Your task to perform on an android device: find snoozed emails in the gmail app Image 0: 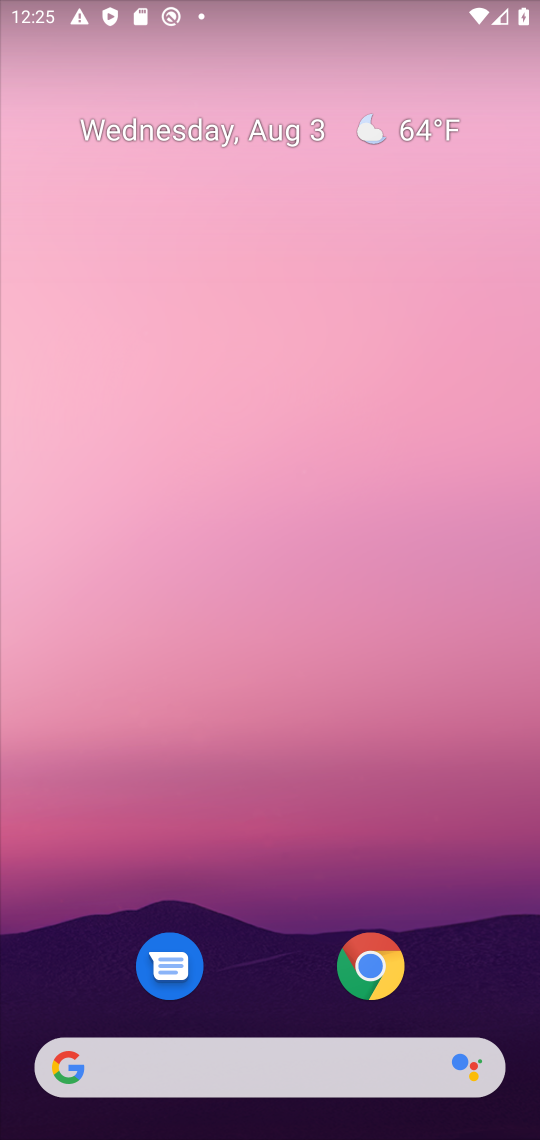
Step 0: drag from (235, 969) to (244, 312)
Your task to perform on an android device: find snoozed emails in the gmail app Image 1: 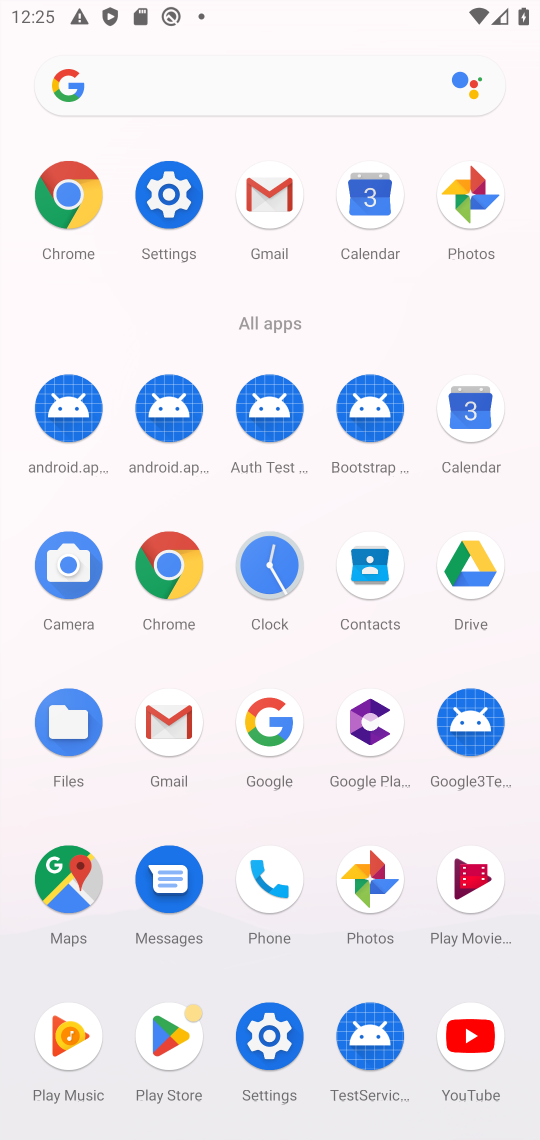
Step 1: click (281, 222)
Your task to perform on an android device: find snoozed emails in the gmail app Image 2: 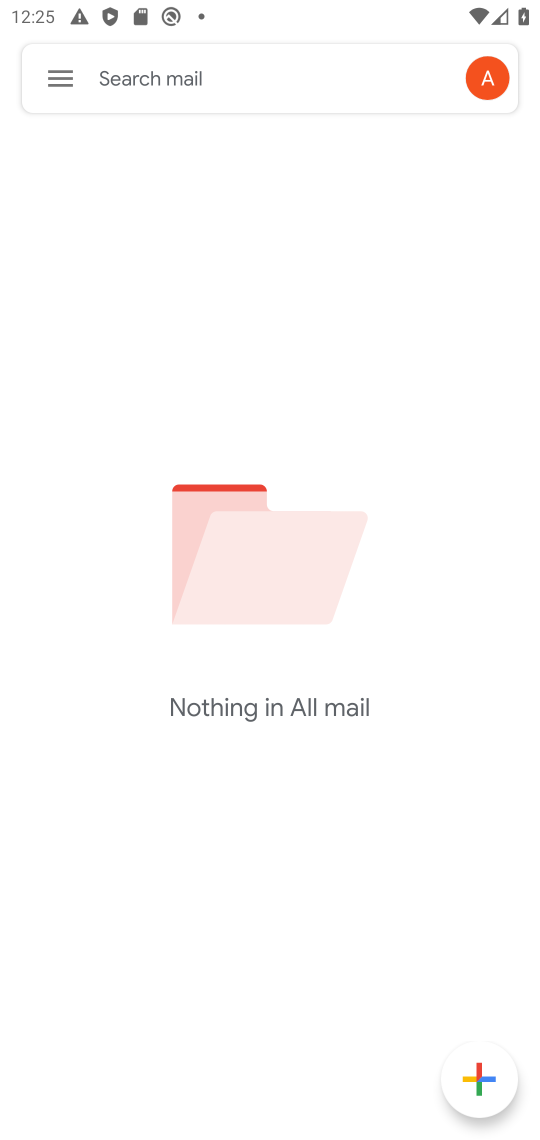
Step 2: click (51, 84)
Your task to perform on an android device: find snoozed emails in the gmail app Image 3: 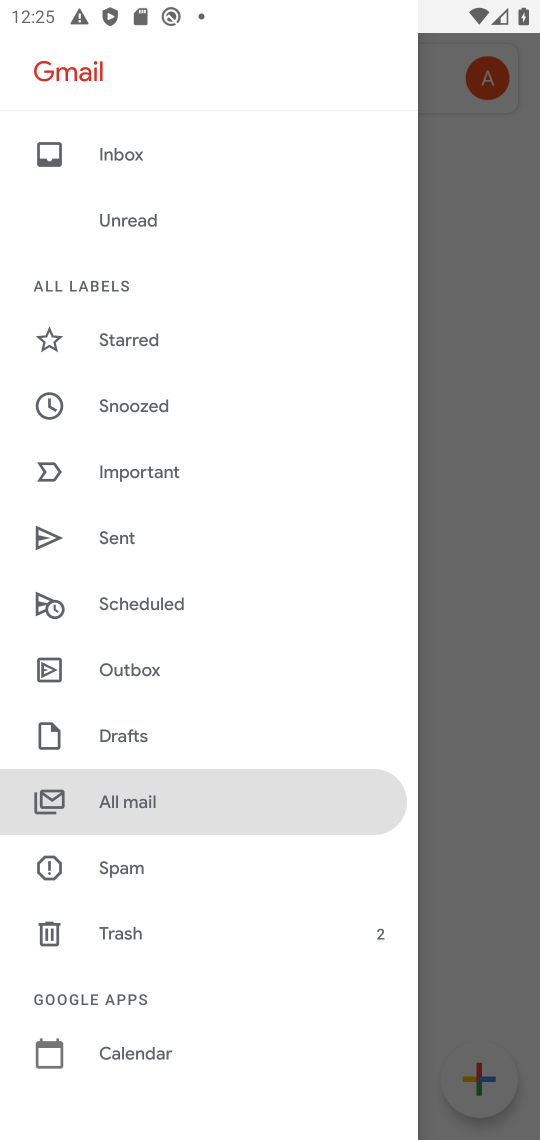
Step 3: click (159, 413)
Your task to perform on an android device: find snoozed emails in the gmail app Image 4: 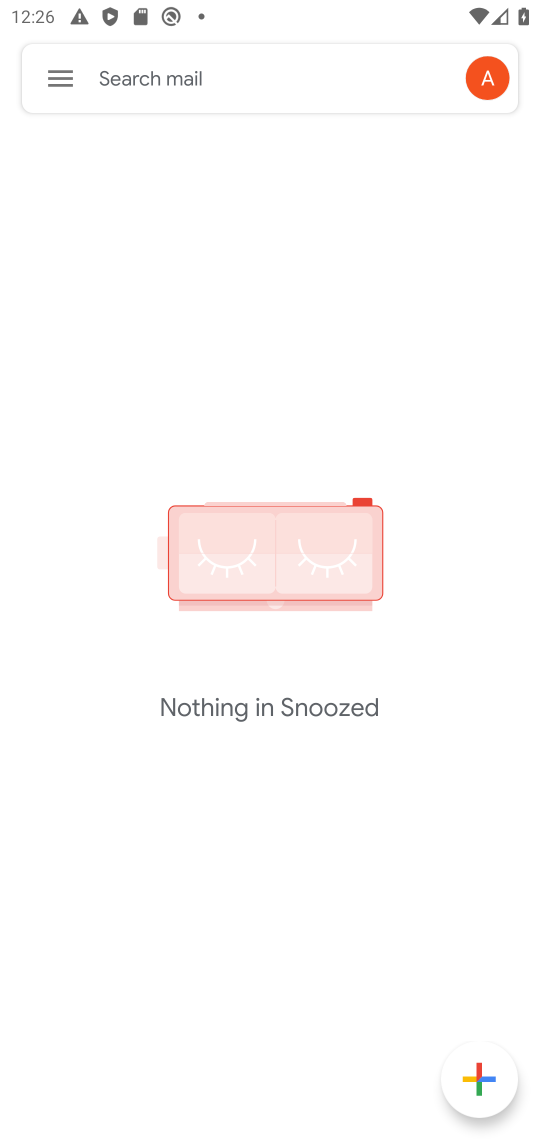
Step 4: task complete